Your task to perform on an android device: check battery use Image 0: 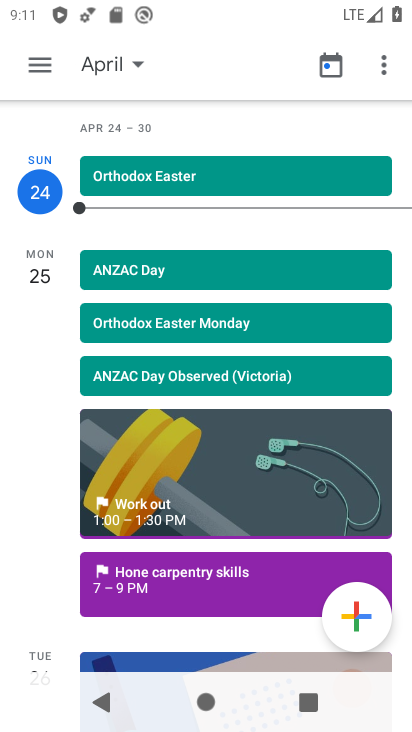
Step 0: press home button
Your task to perform on an android device: check battery use Image 1: 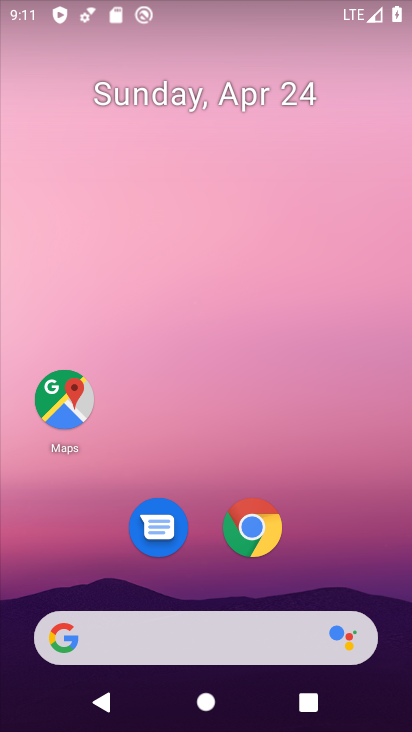
Step 1: drag from (285, 652) to (300, 137)
Your task to perform on an android device: check battery use Image 2: 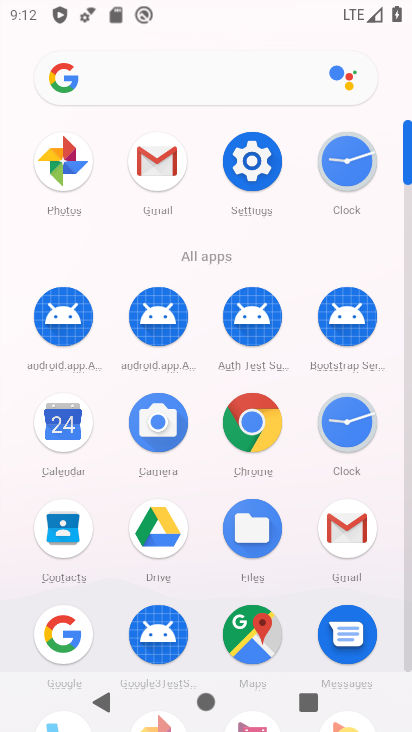
Step 2: drag from (303, 539) to (344, 81)
Your task to perform on an android device: check battery use Image 3: 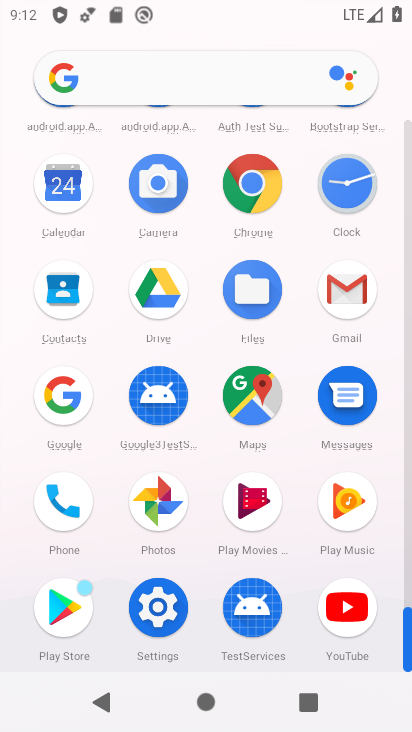
Step 3: click (155, 630)
Your task to perform on an android device: check battery use Image 4: 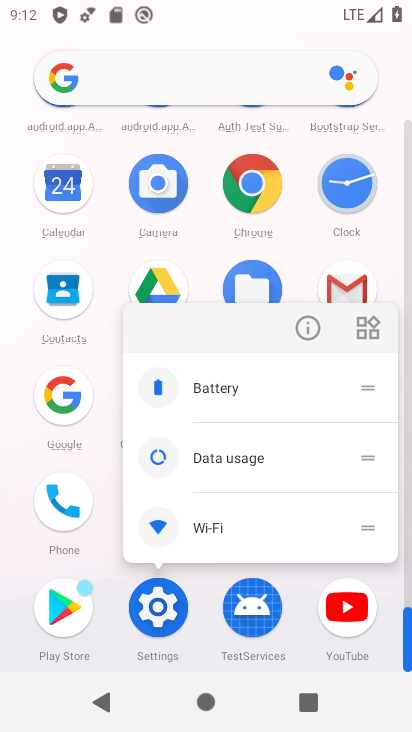
Step 4: click (159, 623)
Your task to perform on an android device: check battery use Image 5: 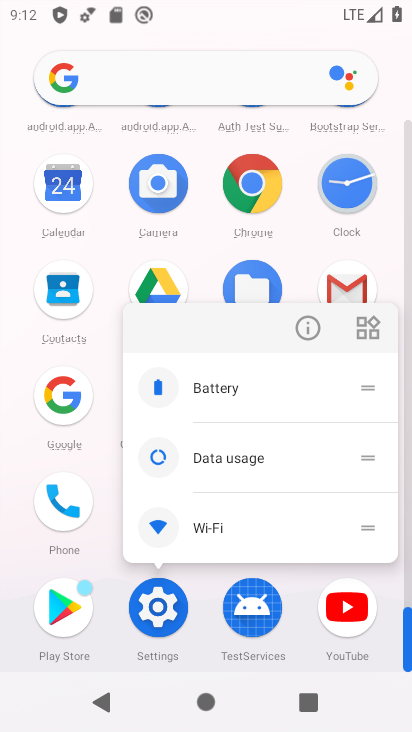
Step 5: click (232, 378)
Your task to perform on an android device: check battery use Image 6: 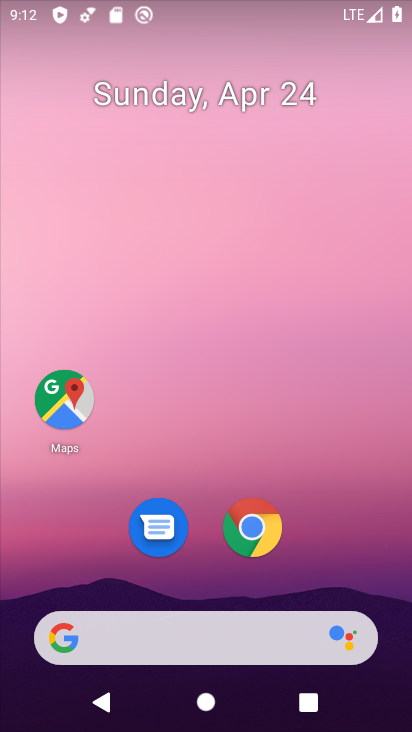
Step 6: task complete